Your task to perform on an android device: turn on the 12-hour format for clock Image 0: 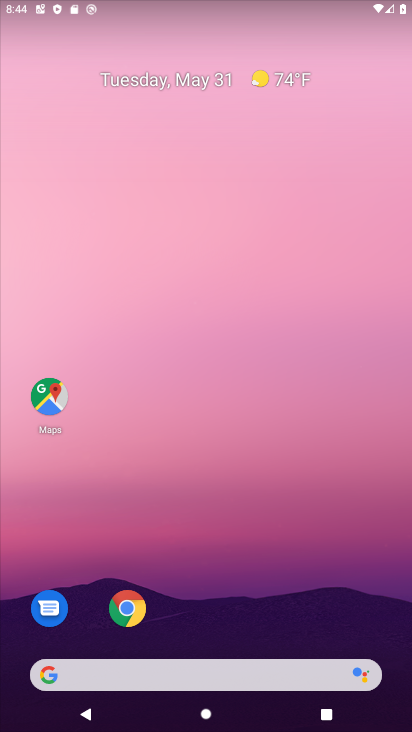
Step 0: drag from (210, 623) to (227, 99)
Your task to perform on an android device: turn on the 12-hour format for clock Image 1: 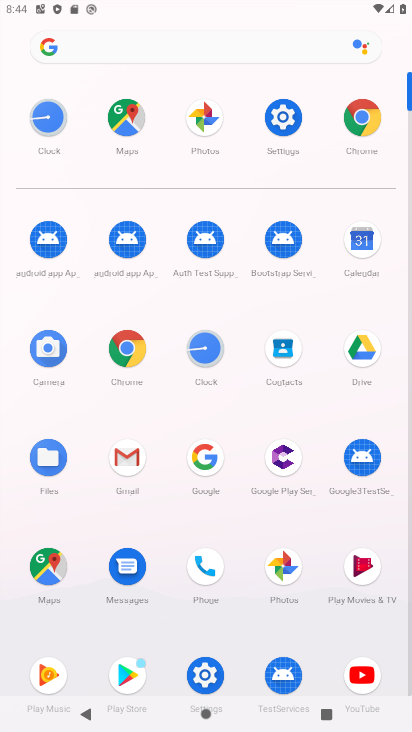
Step 1: click (205, 364)
Your task to perform on an android device: turn on the 12-hour format for clock Image 2: 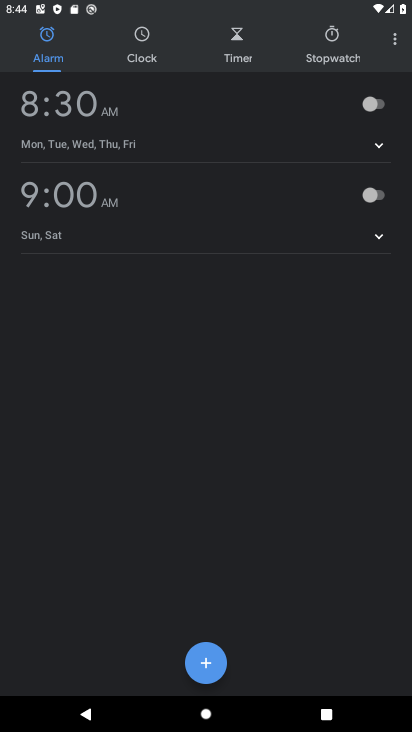
Step 2: click (389, 46)
Your task to perform on an android device: turn on the 12-hour format for clock Image 3: 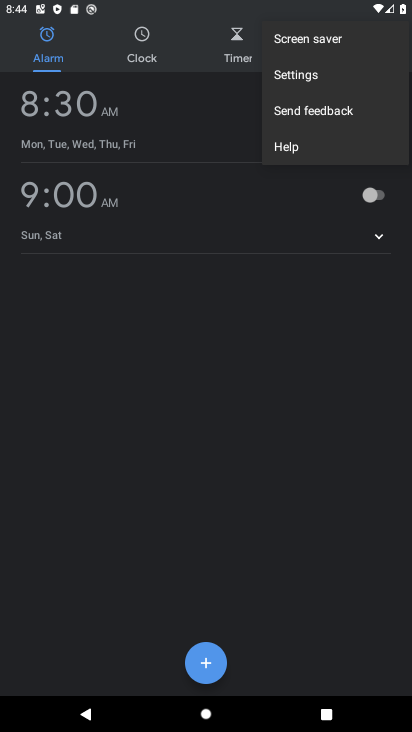
Step 3: click (316, 79)
Your task to perform on an android device: turn on the 12-hour format for clock Image 4: 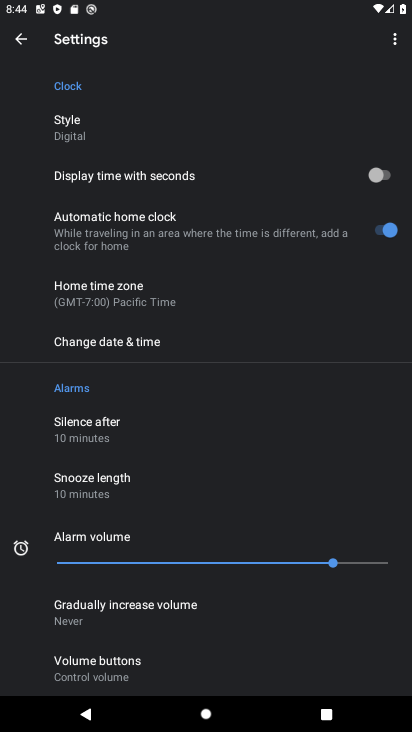
Step 4: click (115, 338)
Your task to perform on an android device: turn on the 12-hour format for clock Image 5: 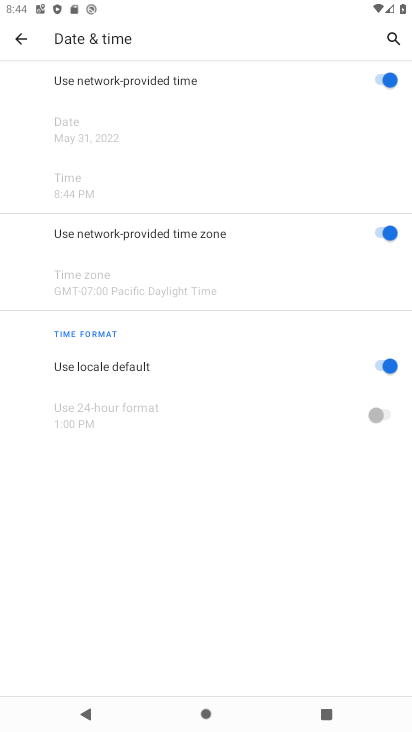
Step 5: task complete